Your task to perform on an android device: When is my next appointment? Image 0: 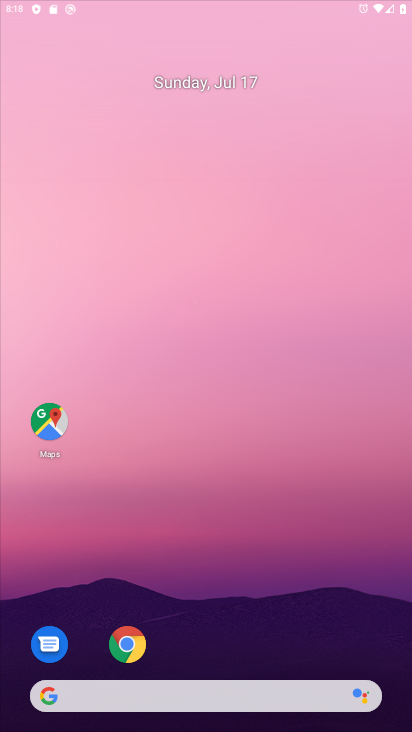
Step 0: drag from (222, 468) to (214, 159)
Your task to perform on an android device: When is my next appointment? Image 1: 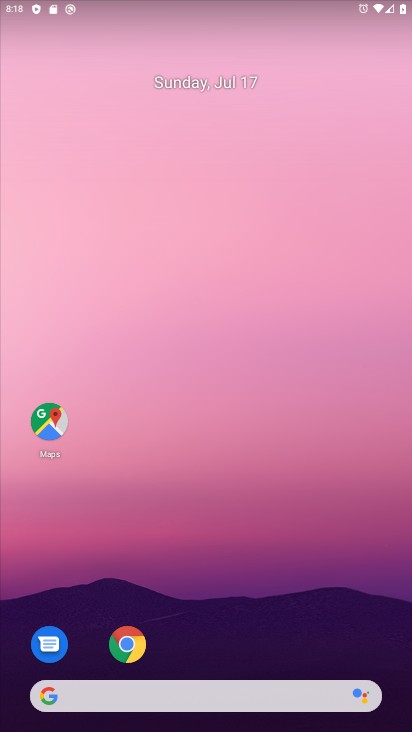
Step 1: drag from (278, 669) to (187, 108)
Your task to perform on an android device: When is my next appointment? Image 2: 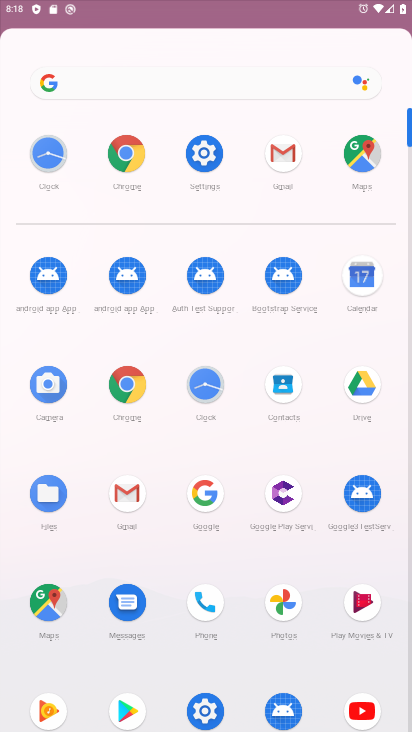
Step 2: drag from (249, 538) to (283, 10)
Your task to perform on an android device: When is my next appointment? Image 3: 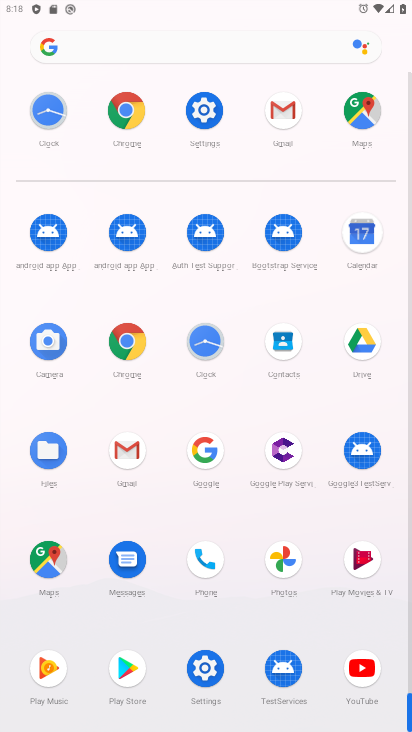
Step 3: click (368, 234)
Your task to perform on an android device: When is my next appointment? Image 4: 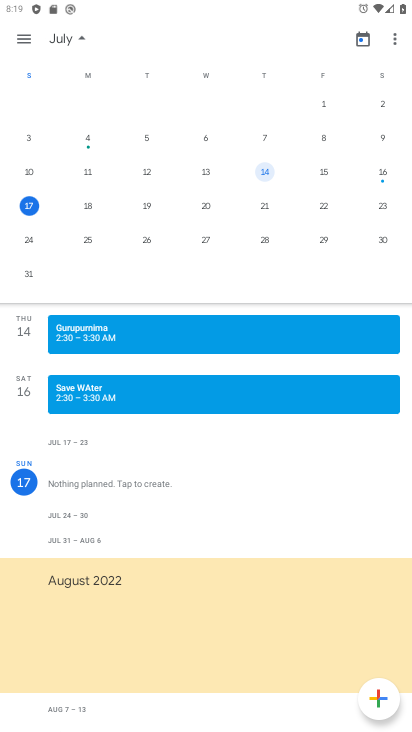
Step 4: task complete